Your task to perform on an android device: Search for sushi restaurants on Maps Image 0: 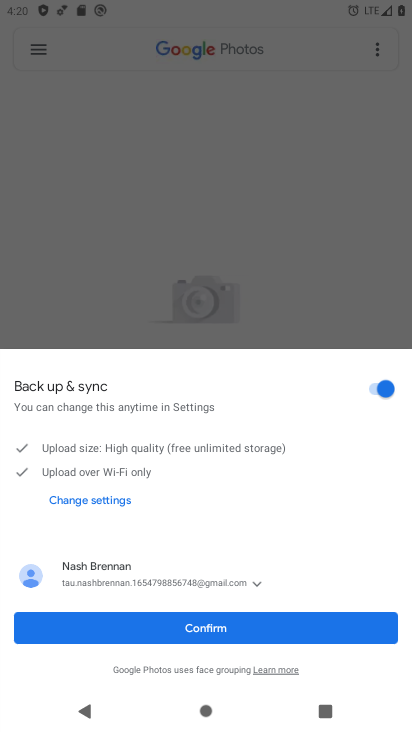
Step 0: press home button
Your task to perform on an android device: Search for sushi restaurants on Maps Image 1: 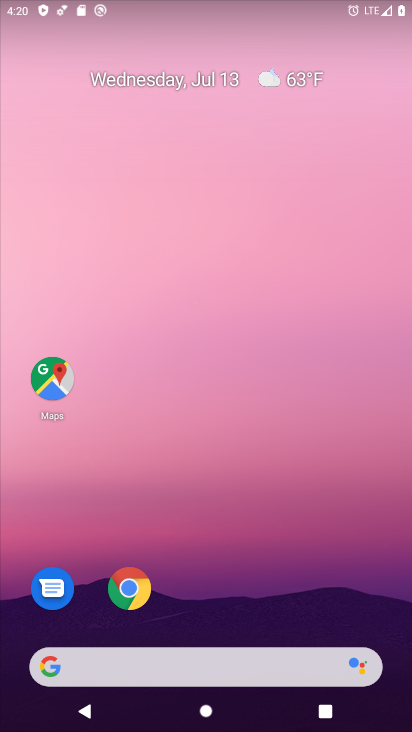
Step 1: click (52, 380)
Your task to perform on an android device: Search for sushi restaurants on Maps Image 2: 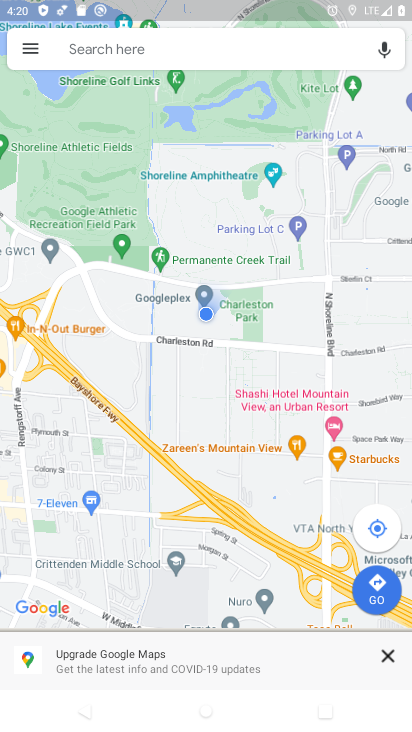
Step 2: click (135, 46)
Your task to perform on an android device: Search for sushi restaurants on Maps Image 3: 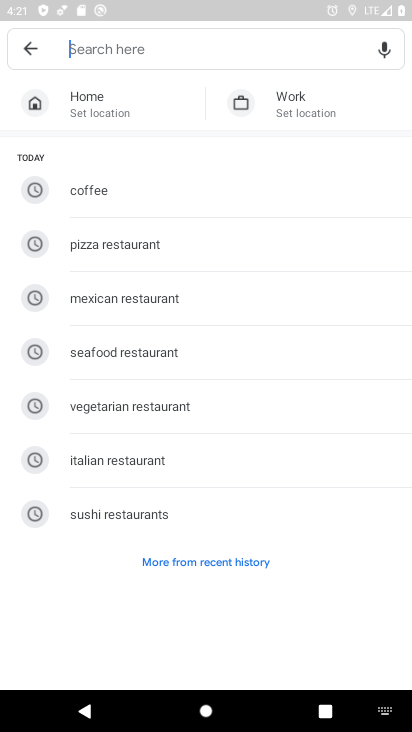
Step 3: type "sushi restaurants"
Your task to perform on an android device: Search for sushi restaurants on Maps Image 4: 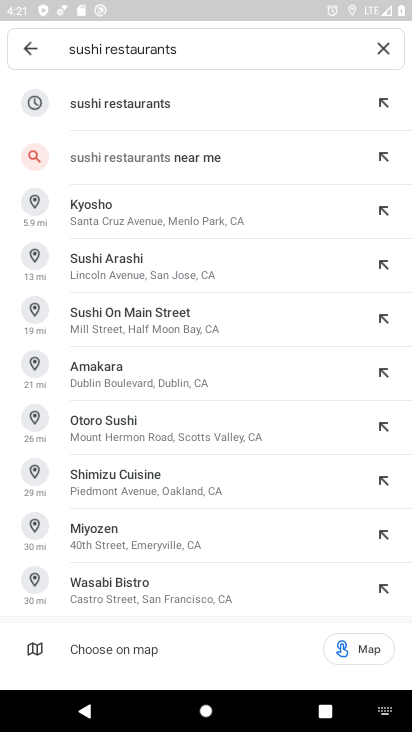
Step 4: click (130, 106)
Your task to perform on an android device: Search for sushi restaurants on Maps Image 5: 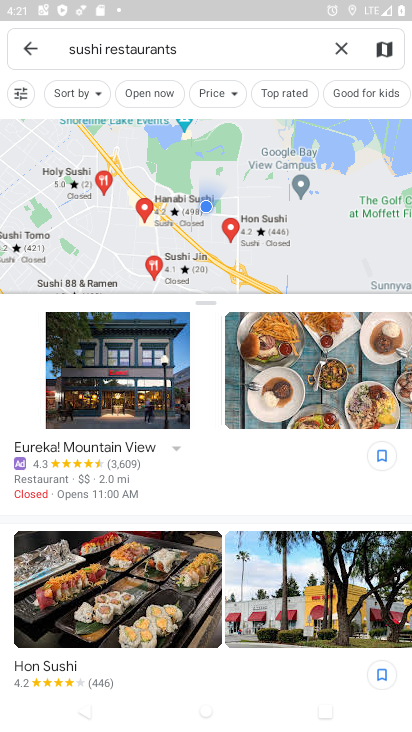
Step 5: task complete